Your task to perform on an android device: turn off improve location accuracy Image 0: 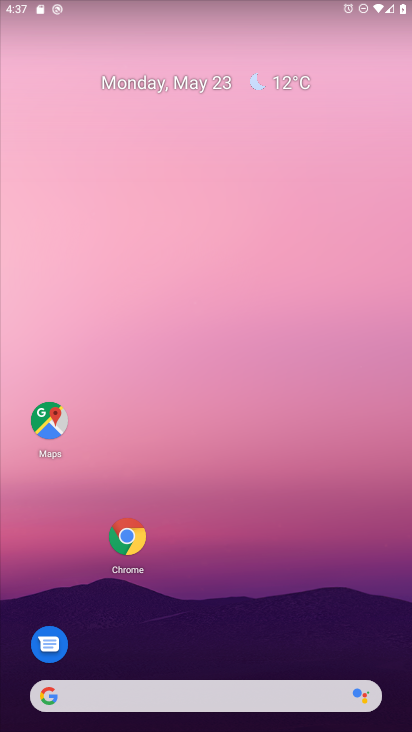
Step 0: drag from (280, 606) to (297, 144)
Your task to perform on an android device: turn off improve location accuracy Image 1: 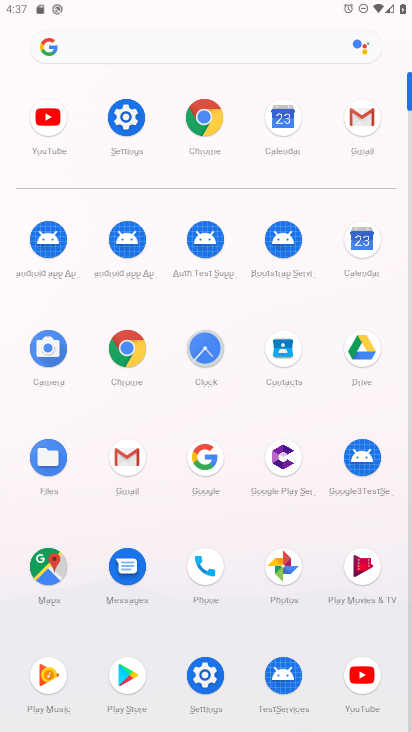
Step 1: click (133, 119)
Your task to perform on an android device: turn off improve location accuracy Image 2: 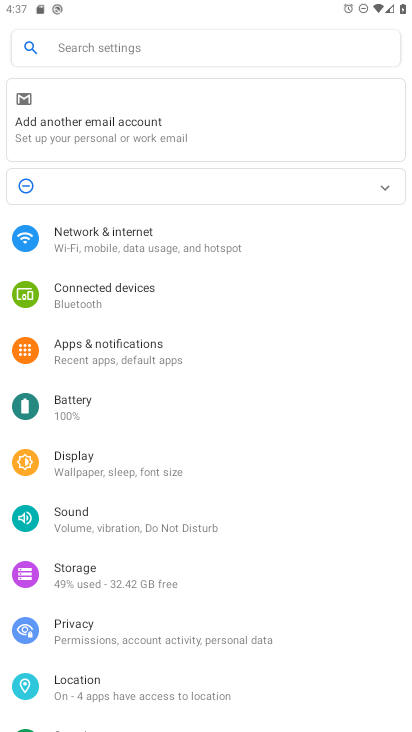
Step 2: drag from (208, 592) to (221, 295)
Your task to perform on an android device: turn off improve location accuracy Image 3: 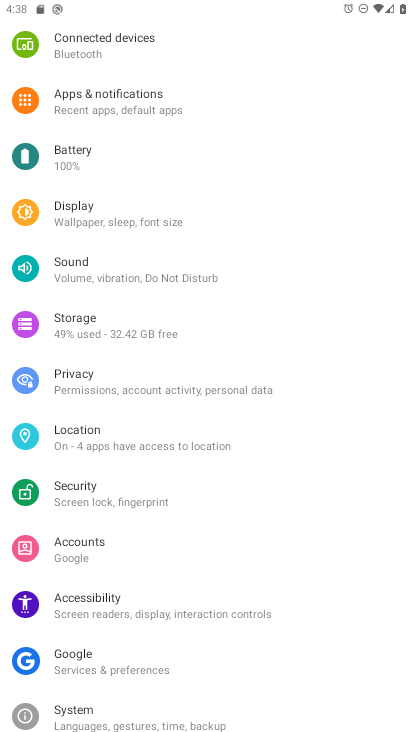
Step 3: click (98, 436)
Your task to perform on an android device: turn off improve location accuracy Image 4: 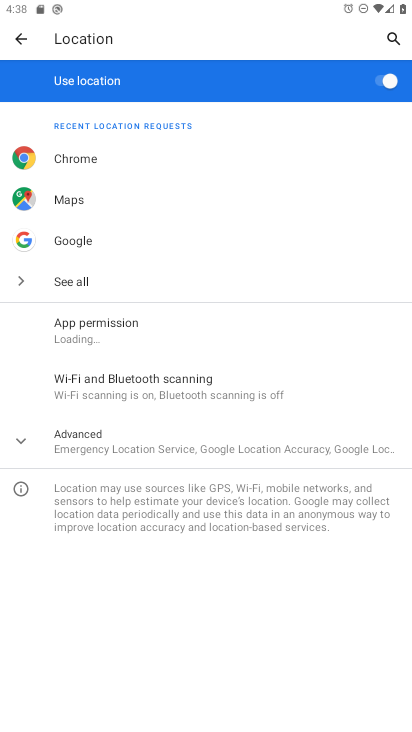
Step 4: click (114, 445)
Your task to perform on an android device: turn off improve location accuracy Image 5: 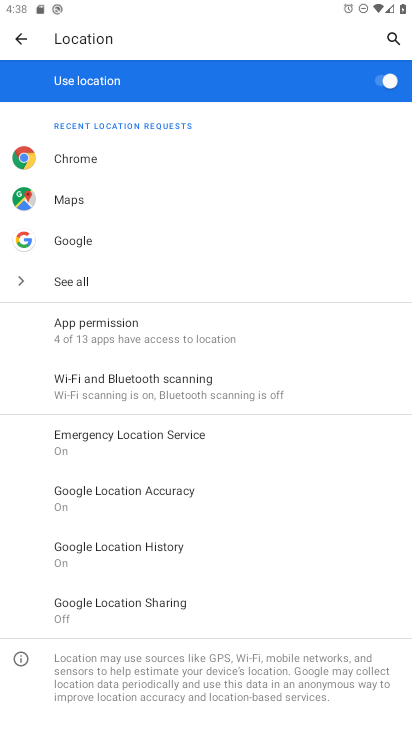
Step 5: click (172, 495)
Your task to perform on an android device: turn off improve location accuracy Image 6: 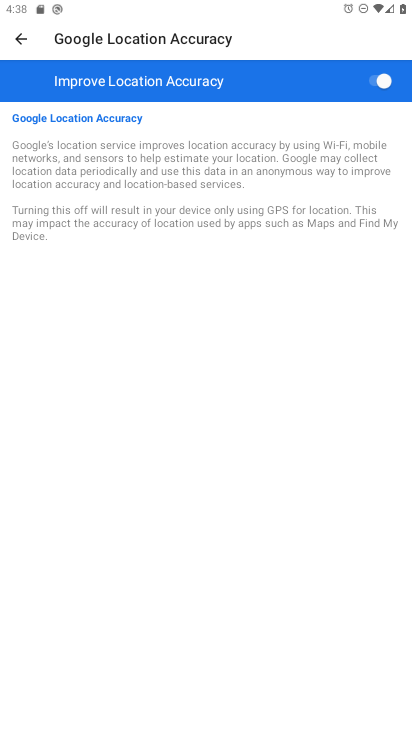
Step 6: click (382, 89)
Your task to perform on an android device: turn off improve location accuracy Image 7: 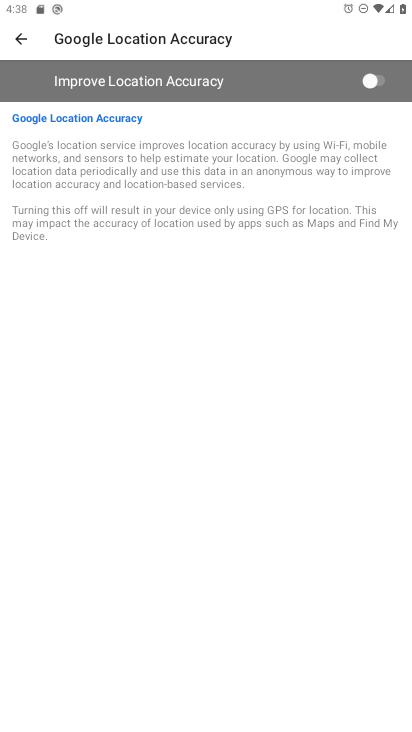
Step 7: task complete